Your task to perform on an android device: Is it going to rain tomorrow? Image 0: 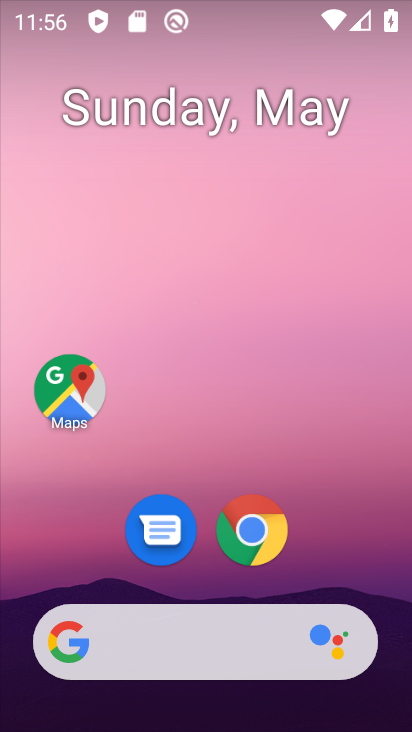
Step 0: click (170, 649)
Your task to perform on an android device: Is it going to rain tomorrow? Image 1: 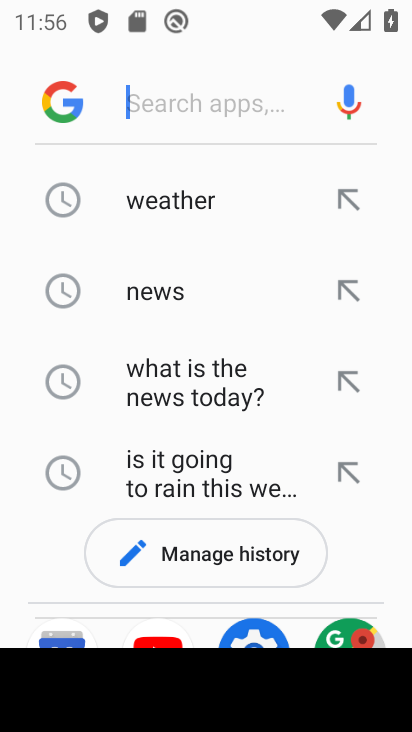
Step 1: click (170, 197)
Your task to perform on an android device: Is it going to rain tomorrow? Image 2: 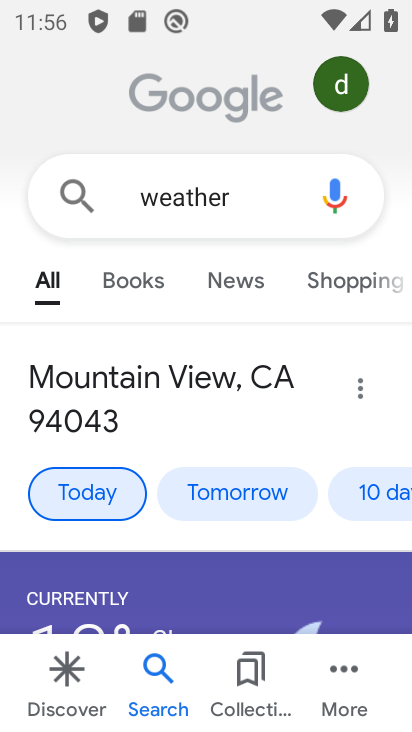
Step 2: click (222, 490)
Your task to perform on an android device: Is it going to rain tomorrow? Image 3: 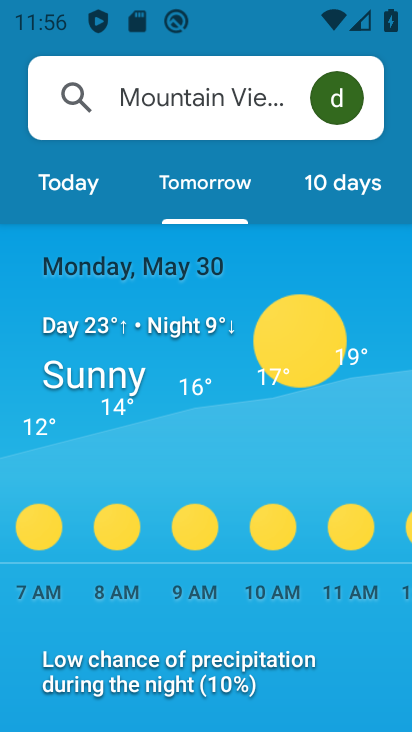
Step 3: task complete